Your task to perform on an android device: Go to internet settings Image 0: 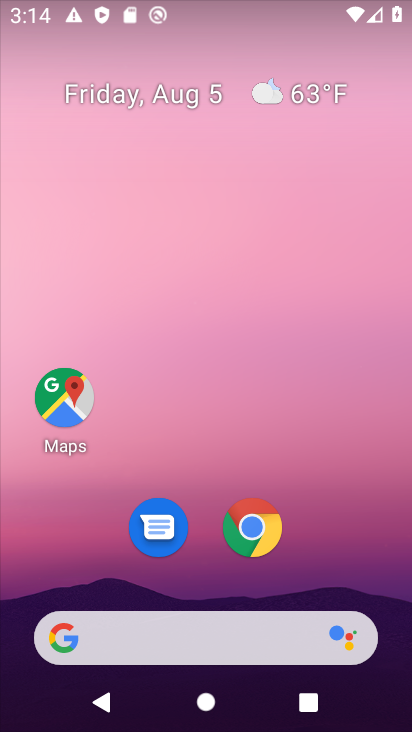
Step 0: drag from (229, 581) to (226, 41)
Your task to perform on an android device: Go to internet settings Image 1: 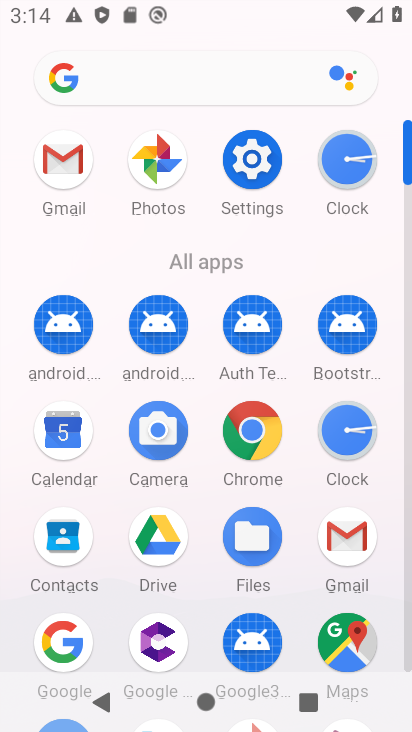
Step 1: click (253, 148)
Your task to perform on an android device: Go to internet settings Image 2: 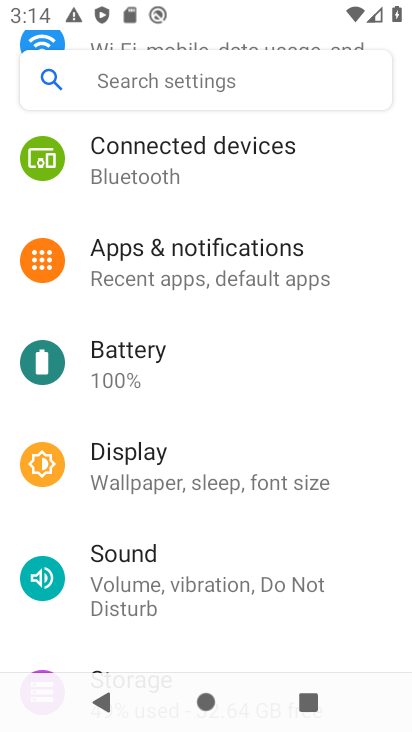
Step 2: drag from (164, 160) to (177, 393)
Your task to perform on an android device: Go to internet settings Image 3: 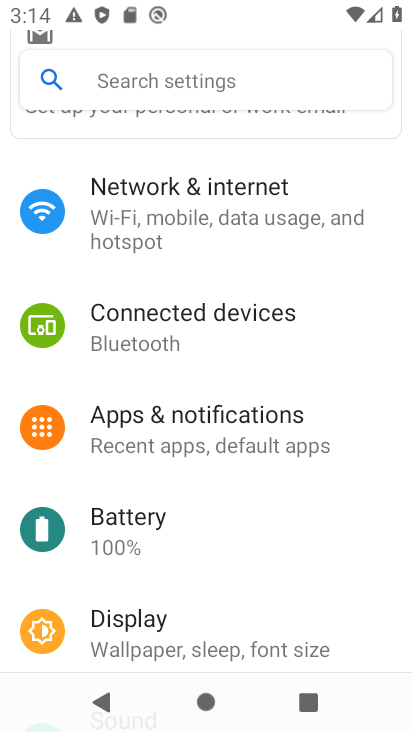
Step 3: click (189, 212)
Your task to perform on an android device: Go to internet settings Image 4: 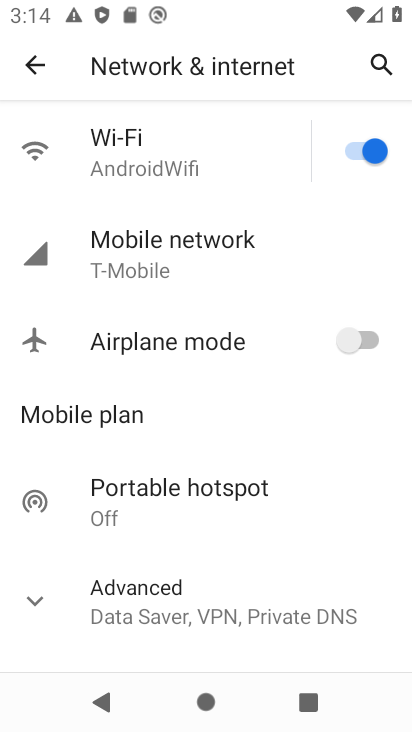
Step 4: task complete